Your task to perform on an android device: check out phone information Image 0: 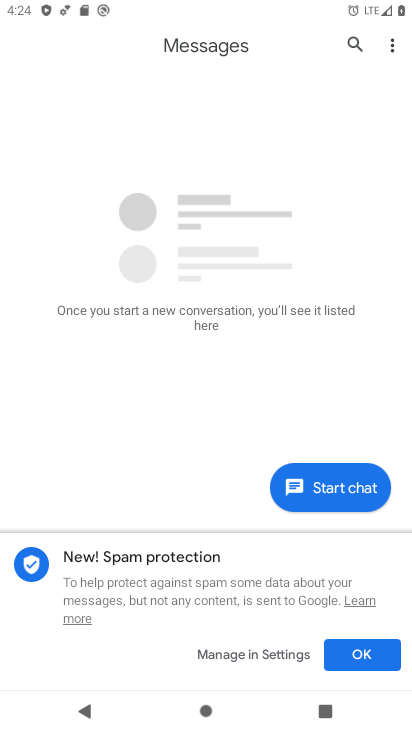
Step 0: press home button
Your task to perform on an android device: check out phone information Image 1: 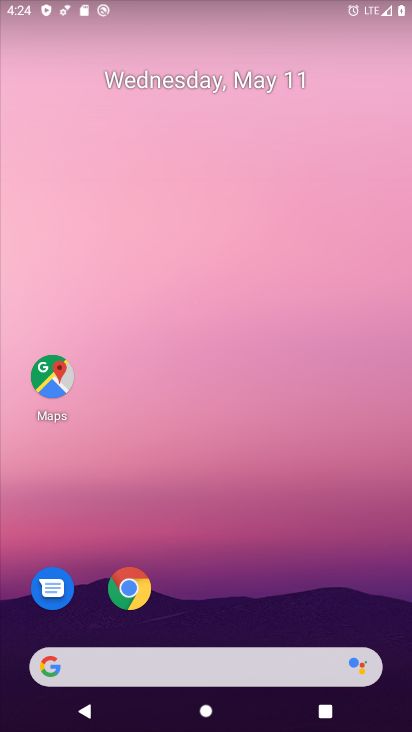
Step 1: drag from (313, 564) to (259, 101)
Your task to perform on an android device: check out phone information Image 2: 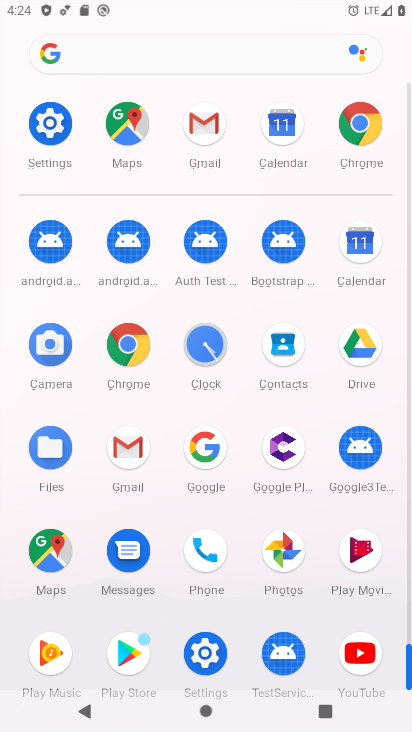
Step 2: click (38, 125)
Your task to perform on an android device: check out phone information Image 3: 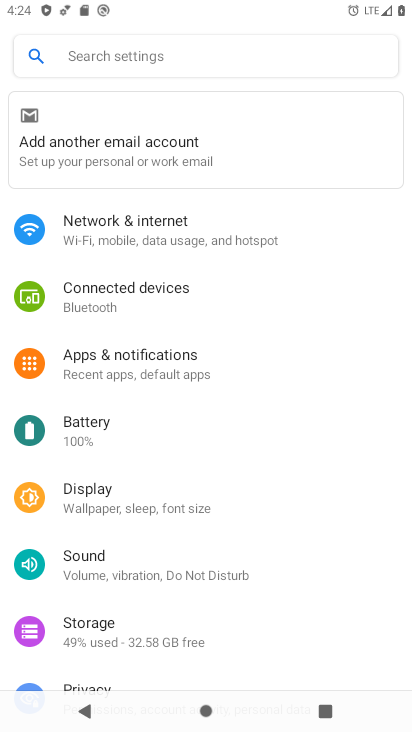
Step 3: drag from (160, 632) to (252, 158)
Your task to perform on an android device: check out phone information Image 4: 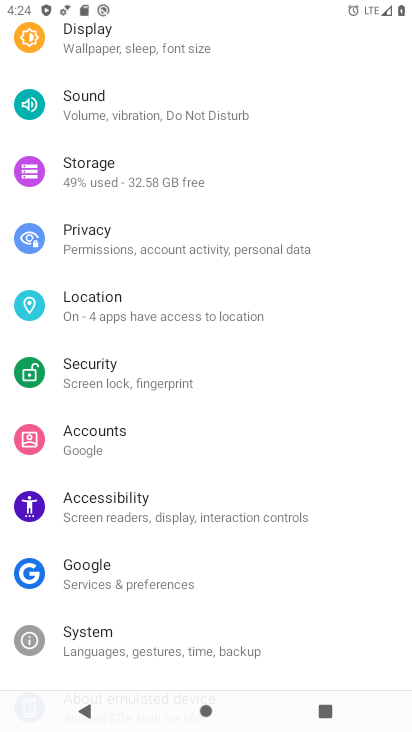
Step 4: drag from (190, 597) to (209, 206)
Your task to perform on an android device: check out phone information Image 5: 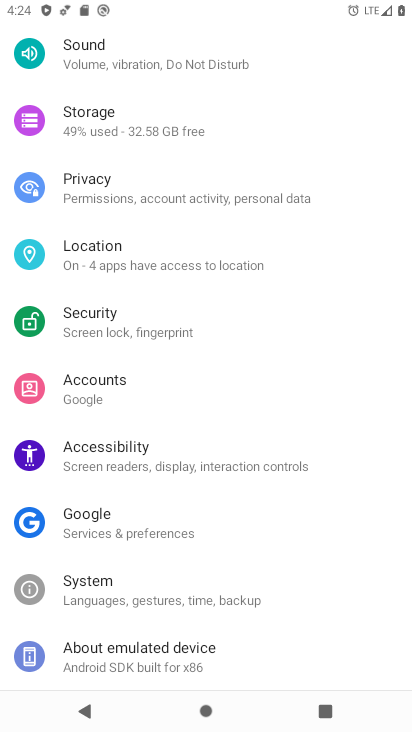
Step 5: click (131, 668)
Your task to perform on an android device: check out phone information Image 6: 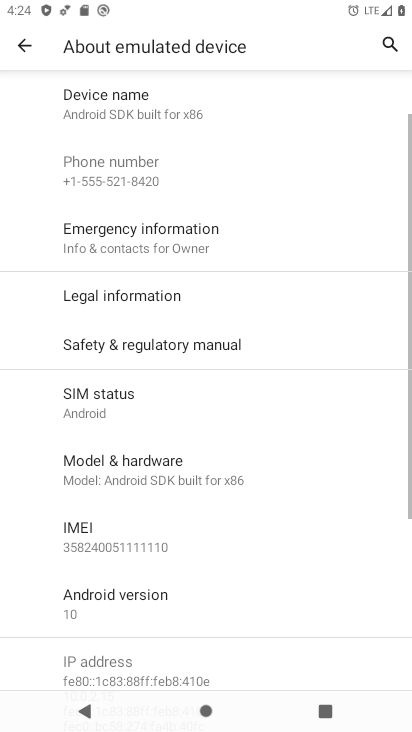
Step 6: task complete